Your task to perform on an android device: What's the weather going to be tomorrow? Image 0: 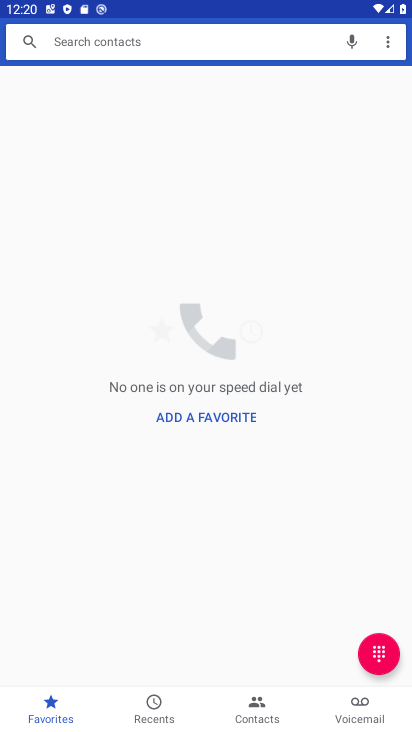
Step 0: press home button
Your task to perform on an android device: What's the weather going to be tomorrow? Image 1: 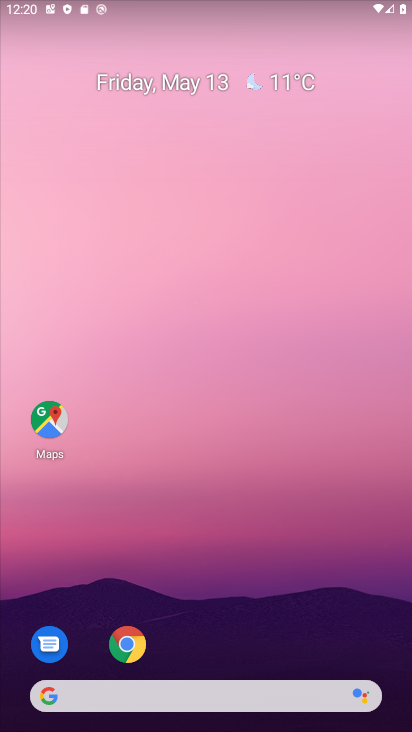
Step 1: drag from (215, 724) to (196, 28)
Your task to perform on an android device: What's the weather going to be tomorrow? Image 2: 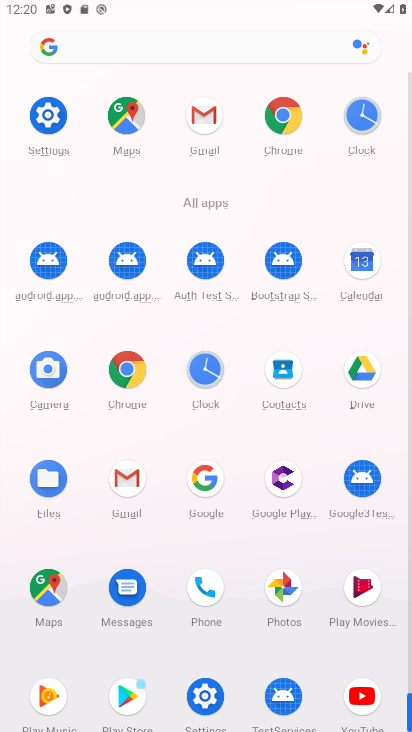
Step 2: click (207, 480)
Your task to perform on an android device: What's the weather going to be tomorrow? Image 3: 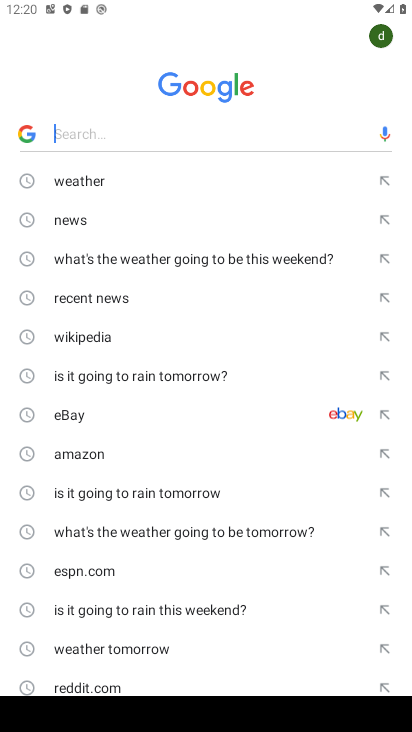
Step 3: click (69, 176)
Your task to perform on an android device: What's the weather going to be tomorrow? Image 4: 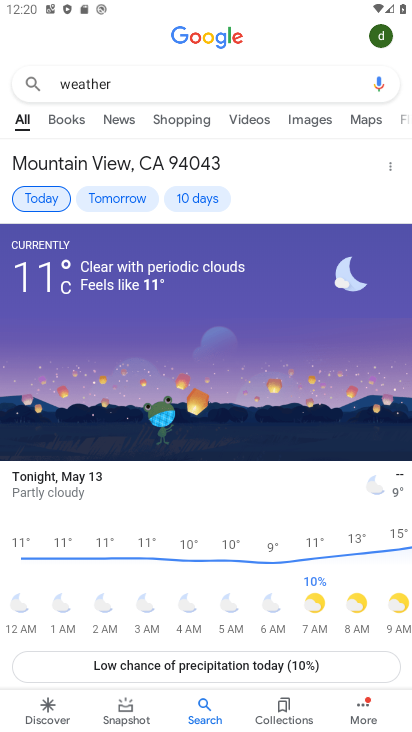
Step 4: click (103, 193)
Your task to perform on an android device: What's the weather going to be tomorrow? Image 5: 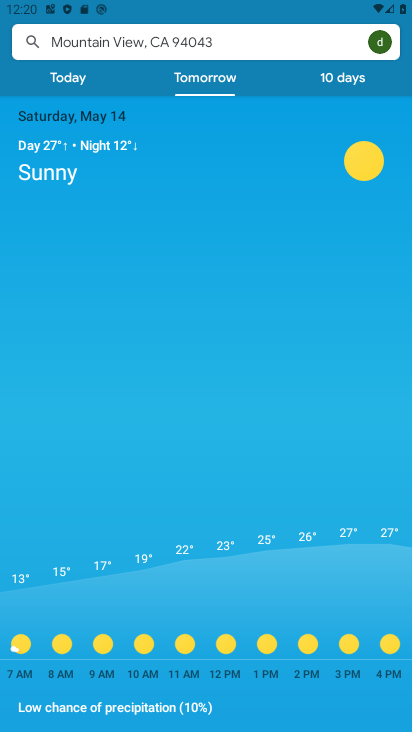
Step 5: task complete